Your task to perform on an android device: Open Chrome and go to settings Image 0: 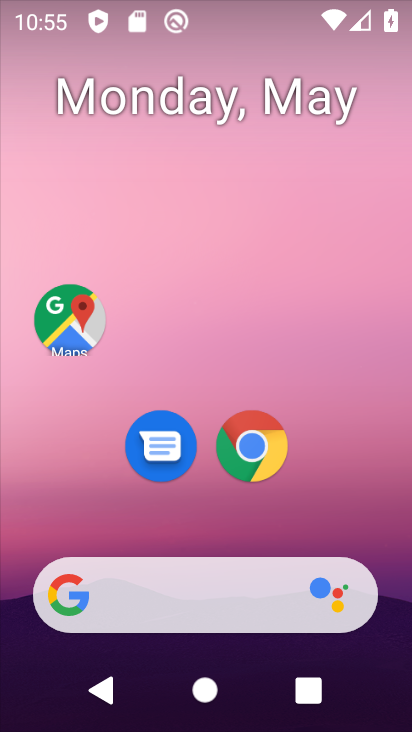
Step 0: click (255, 449)
Your task to perform on an android device: Open Chrome and go to settings Image 1: 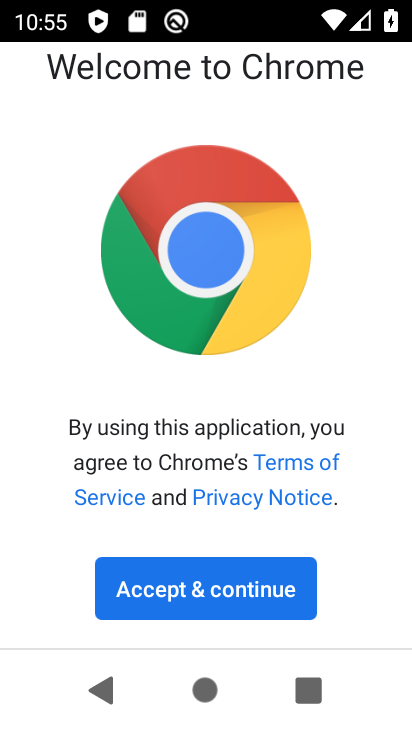
Step 1: click (257, 582)
Your task to perform on an android device: Open Chrome and go to settings Image 2: 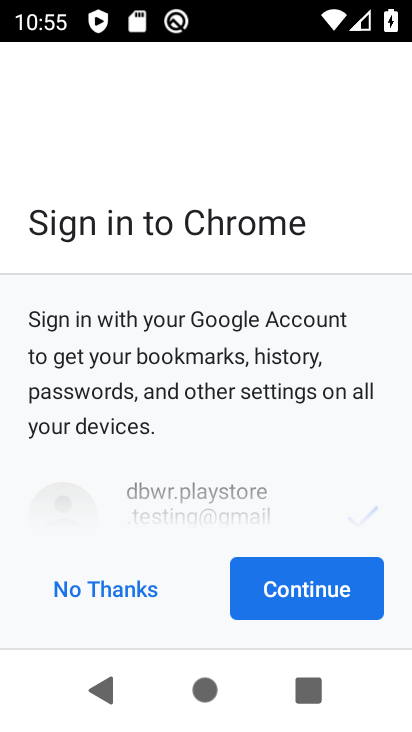
Step 2: click (317, 587)
Your task to perform on an android device: Open Chrome and go to settings Image 3: 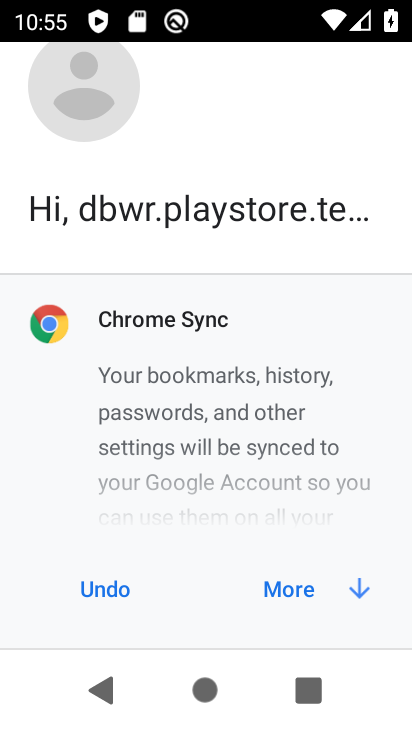
Step 3: click (354, 590)
Your task to perform on an android device: Open Chrome and go to settings Image 4: 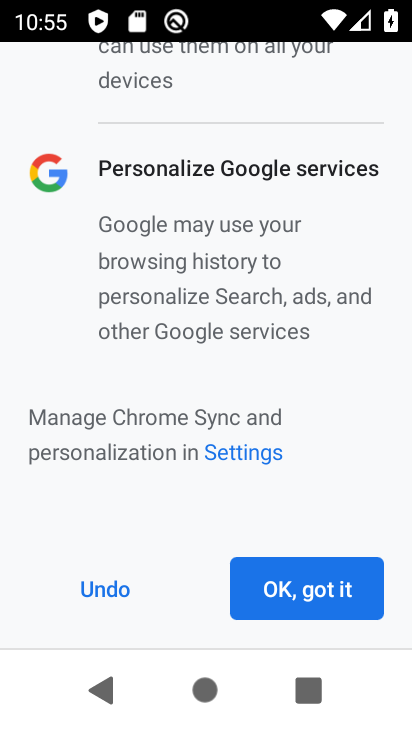
Step 4: click (324, 590)
Your task to perform on an android device: Open Chrome and go to settings Image 5: 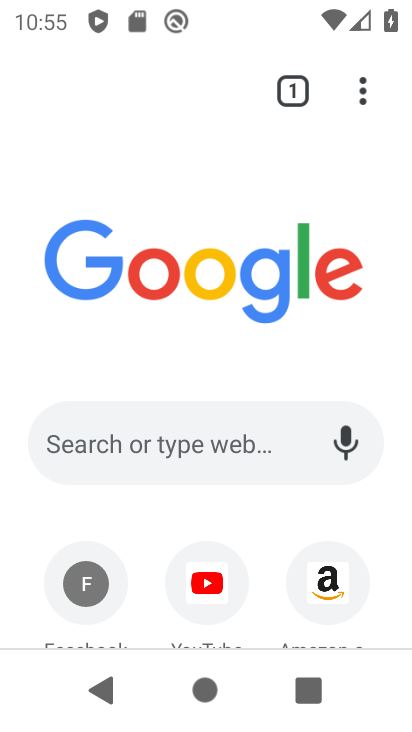
Step 5: click (363, 92)
Your task to perform on an android device: Open Chrome and go to settings Image 6: 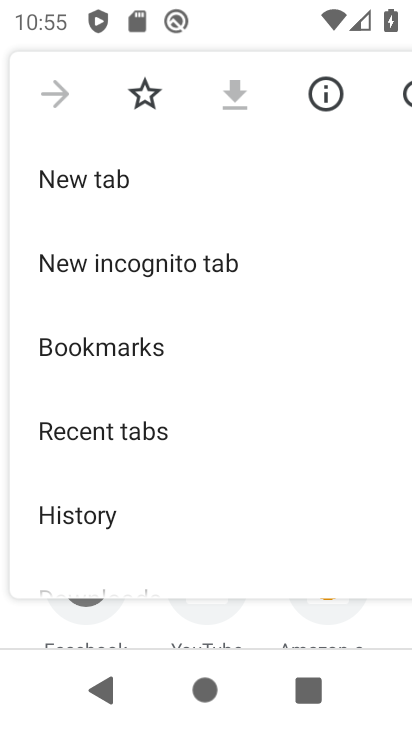
Step 6: drag from (196, 484) to (101, 62)
Your task to perform on an android device: Open Chrome and go to settings Image 7: 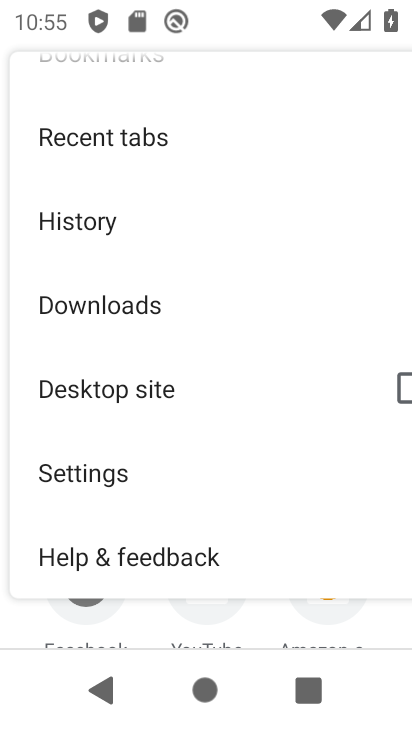
Step 7: click (85, 466)
Your task to perform on an android device: Open Chrome and go to settings Image 8: 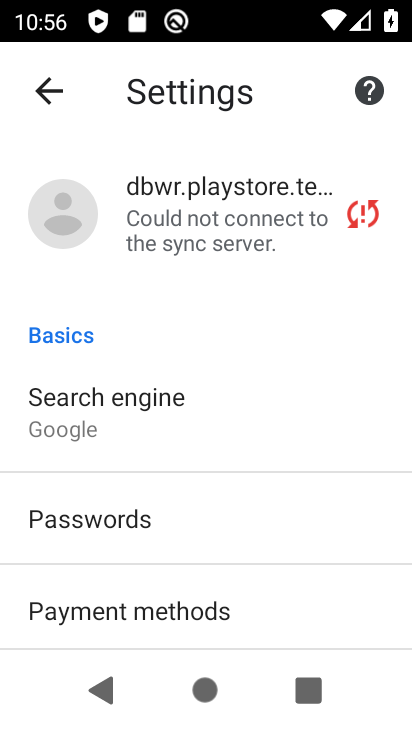
Step 8: task complete